Your task to perform on an android device: manage bookmarks in the chrome app Image 0: 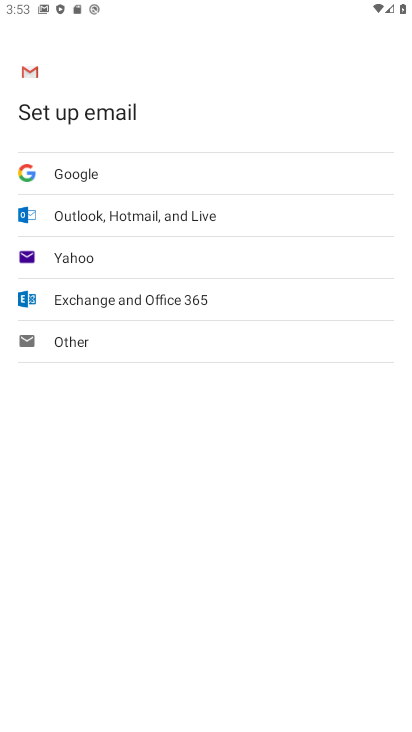
Step 0: press home button
Your task to perform on an android device: manage bookmarks in the chrome app Image 1: 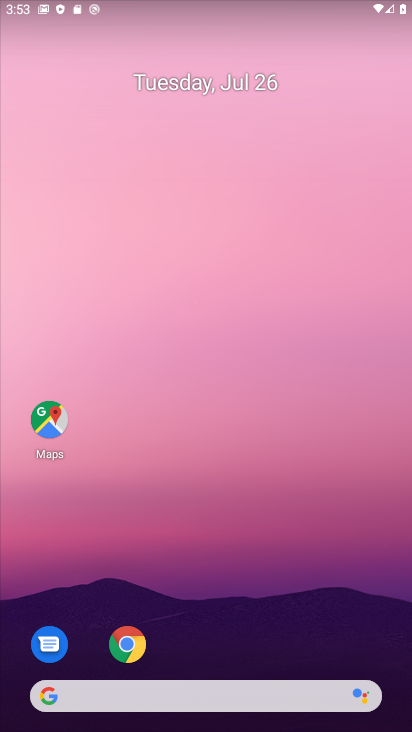
Step 1: click (125, 643)
Your task to perform on an android device: manage bookmarks in the chrome app Image 2: 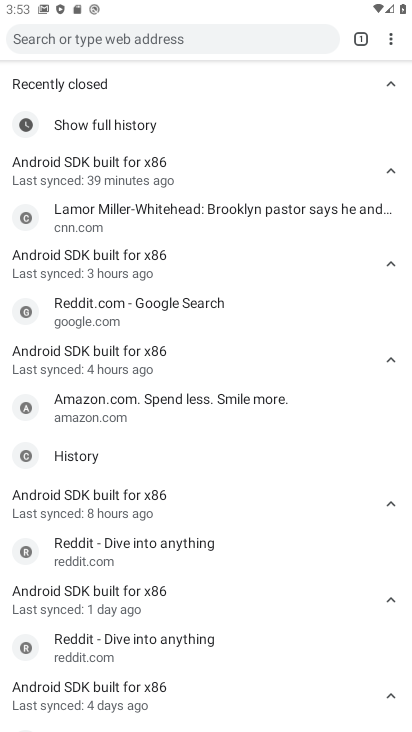
Step 2: click (391, 43)
Your task to perform on an android device: manage bookmarks in the chrome app Image 3: 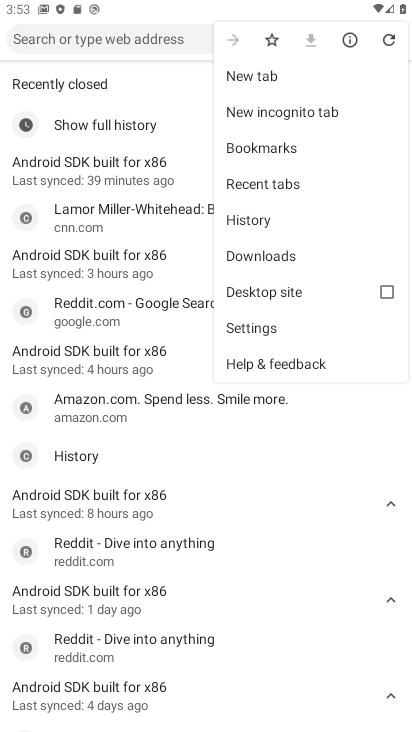
Step 3: click (260, 145)
Your task to perform on an android device: manage bookmarks in the chrome app Image 4: 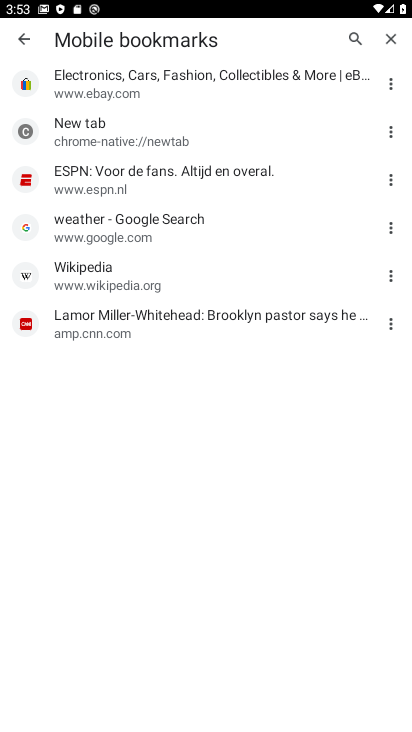
Step 4: click (92, 322)
Your task to perform on an android device: manage bookmarks in the chrome app Image 5: 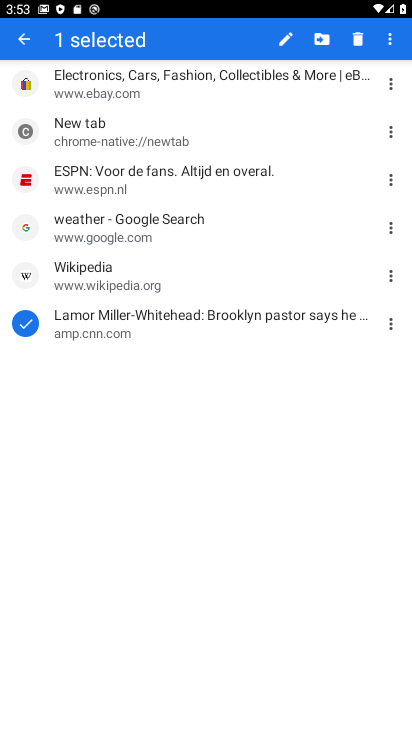
Step 5: click (321, 39)
Your task to perform on an android device: manage bookmarks in the chrome app Image 6: 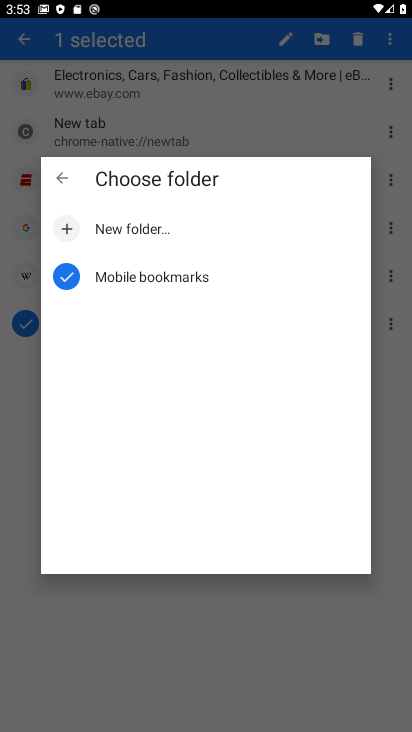
Step 6: click (62, 226)
Your task to perform on an android device: manage bookmarks in the chrome app Image 7: 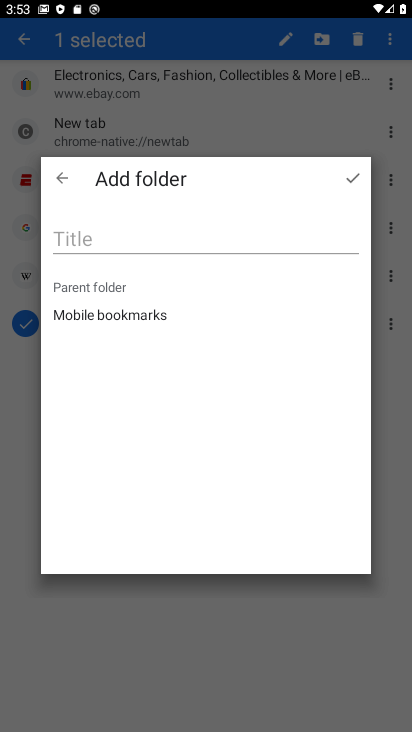
Step 7: click (94, 244)
Your task to perform on an android device: manage bookmarks in the chrome app Image 8: 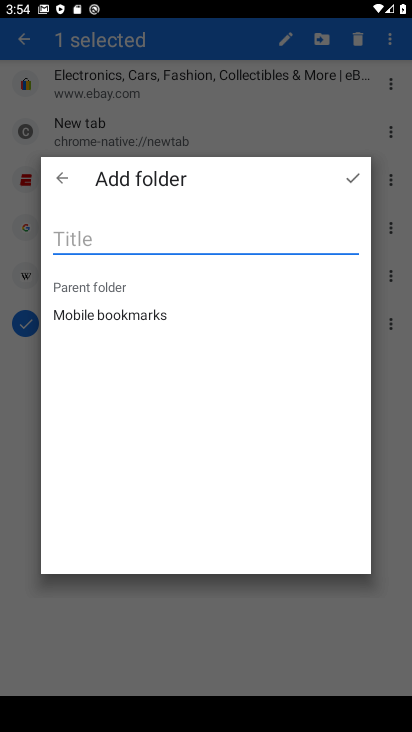
Step 8: type "tidgpgop"
Your task to perform on an android device: manage bookmarks in the chrome app Image 9: 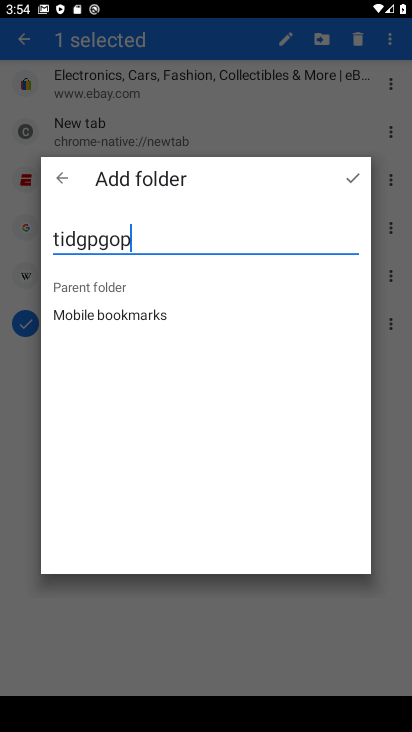
Step 9: click (353, 179)
Your task to perform on an android device: manage bookmarks in the chrome app Image 10: 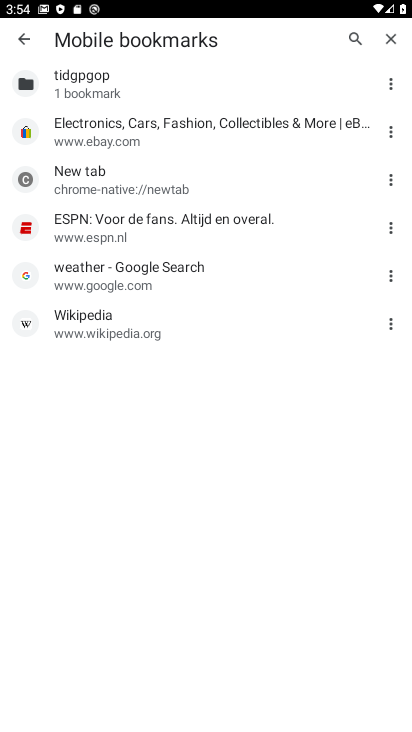
Step 10: task complete